Your task to perform on an android device: turn off sleep mode Image 0: 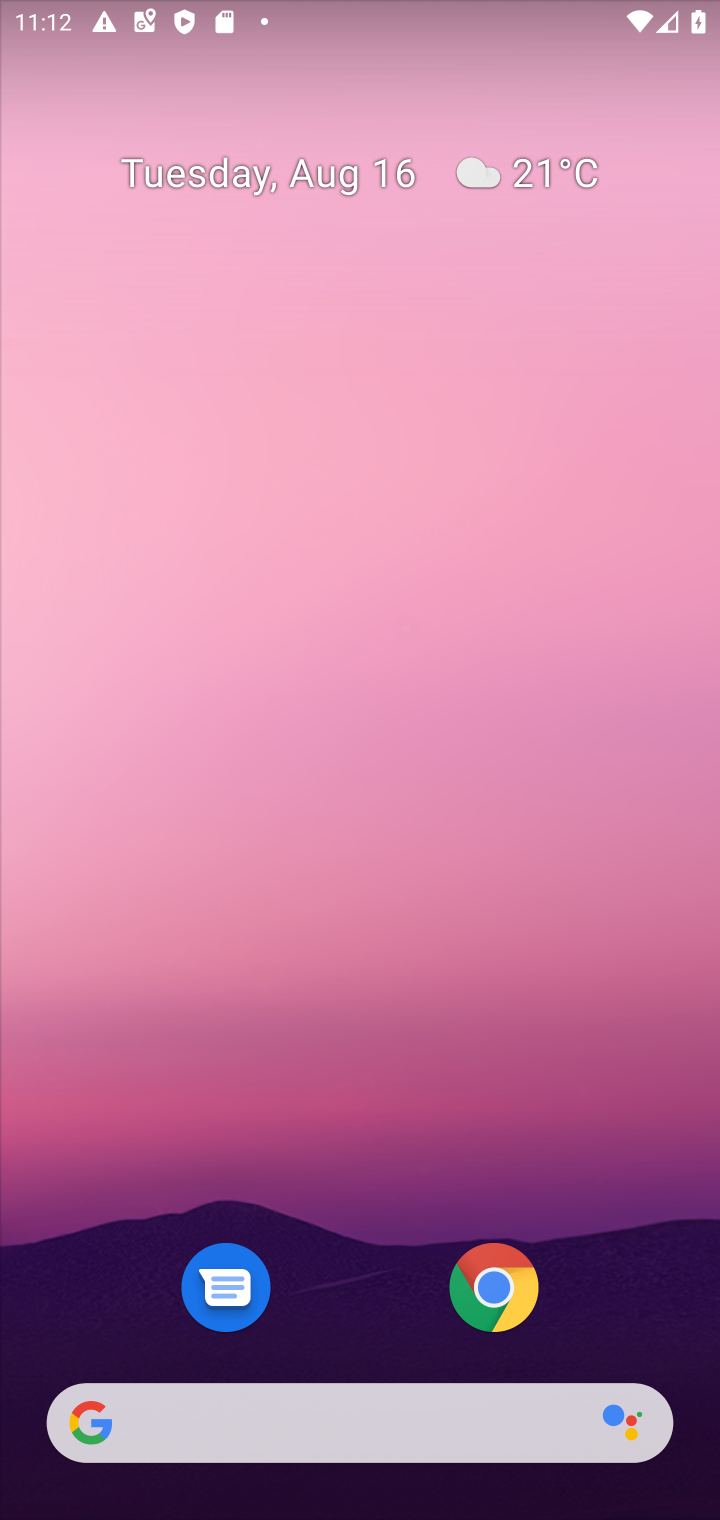
Step 0: drag from (667, 1273) to (616, 321)
Your task to perform on an android device: turn off sleep mode Image 1: 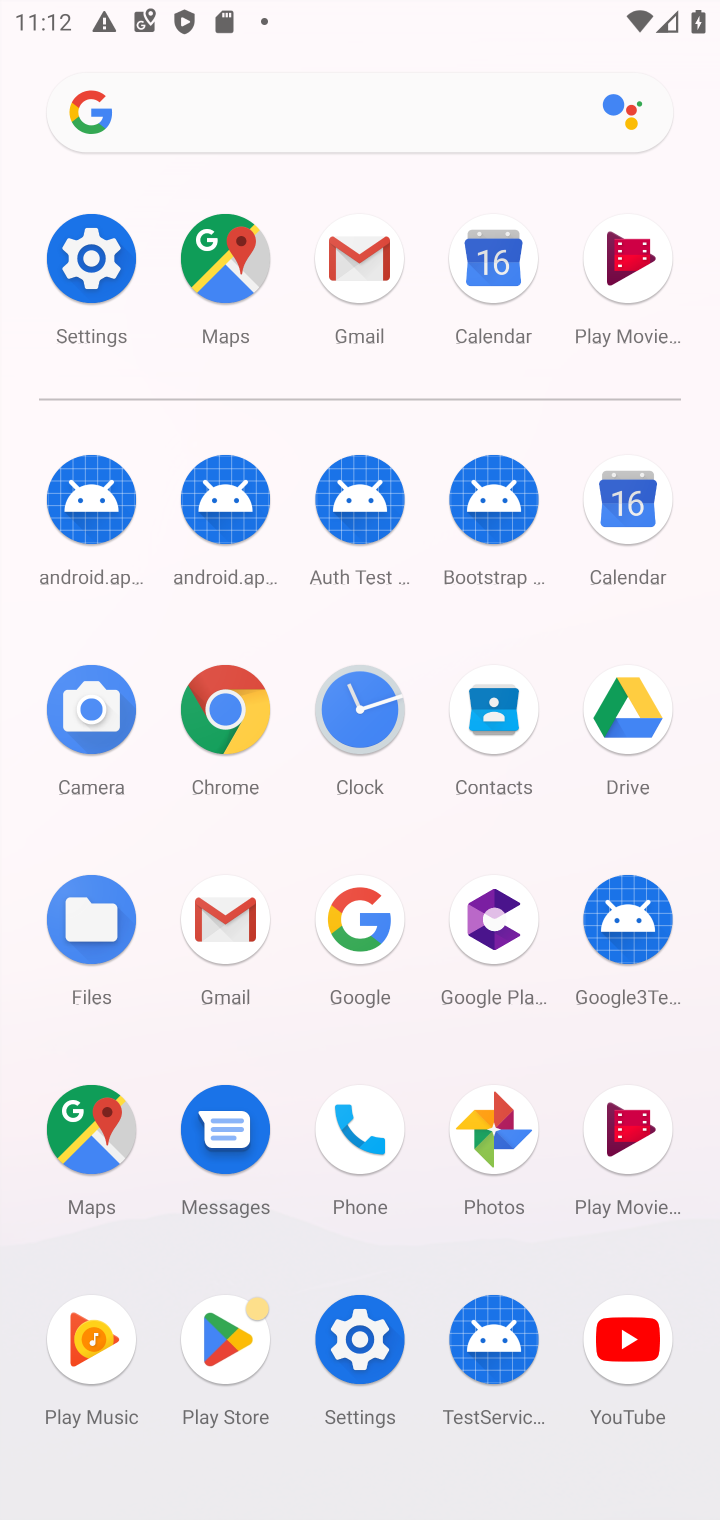
Step 1: click (355, 1342)
Your task to perform on an android device: turn off sleep mode Image 2: 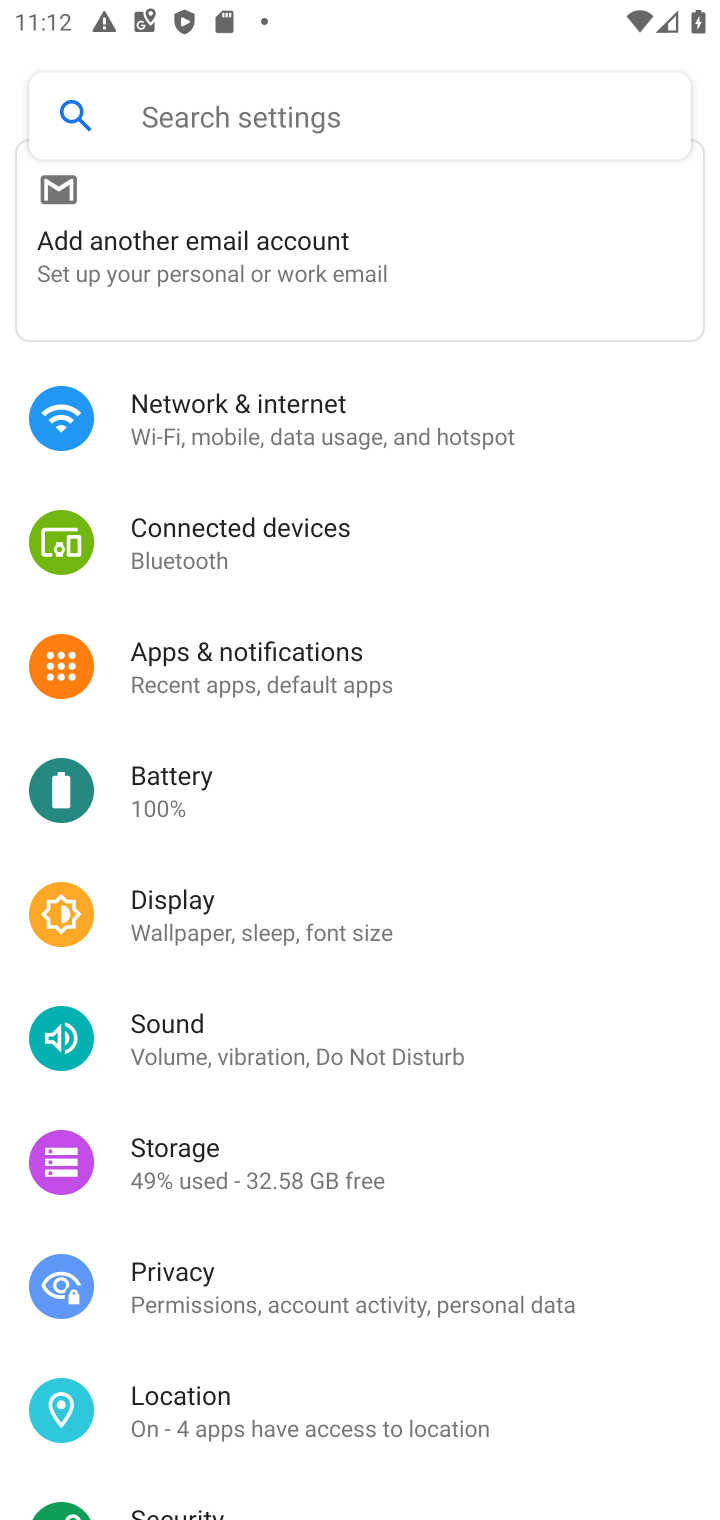
Step 2: click (176, 924)
Your task to perform on an android device: turn off sleep mode Image 3: 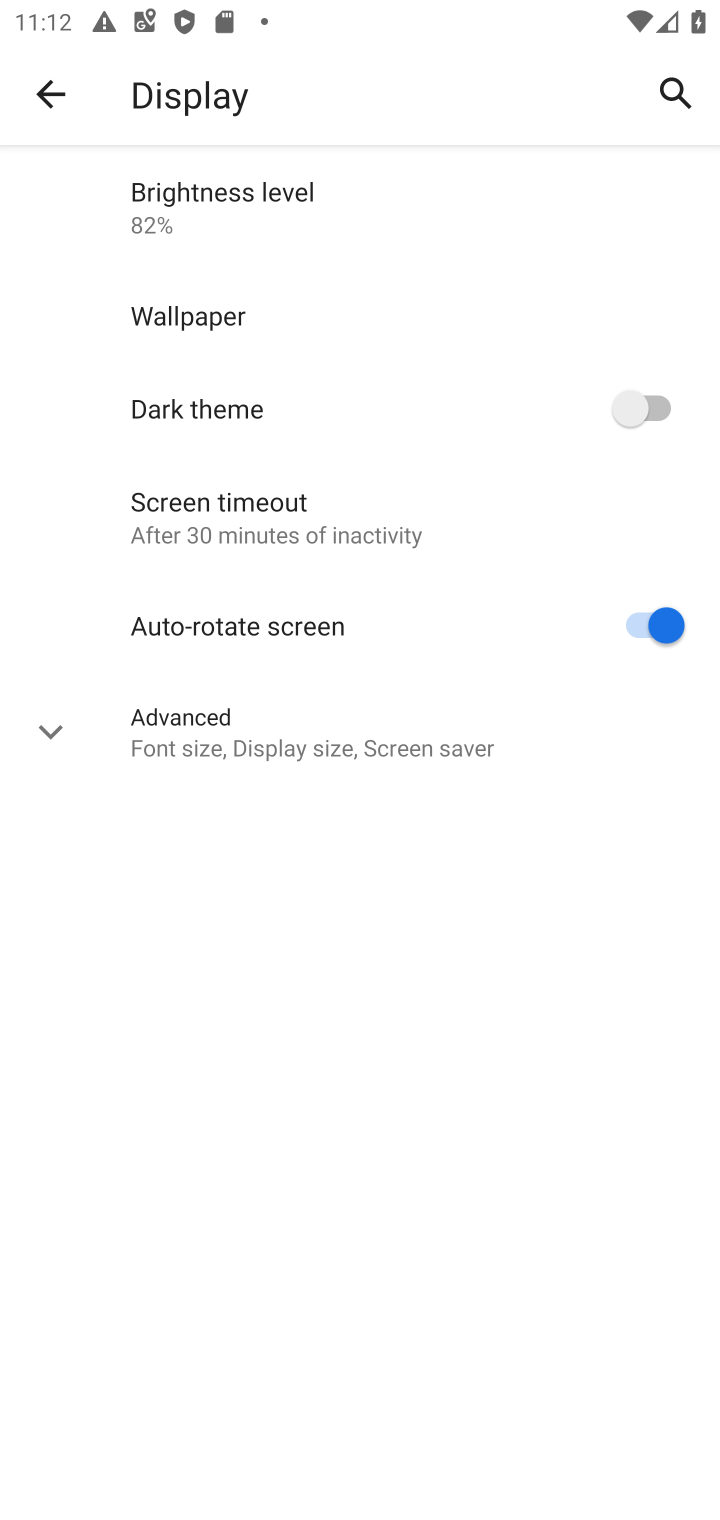
Step 3: click (51, 733)
Your task to perform on an android device: turn off sleep mode Image 4: 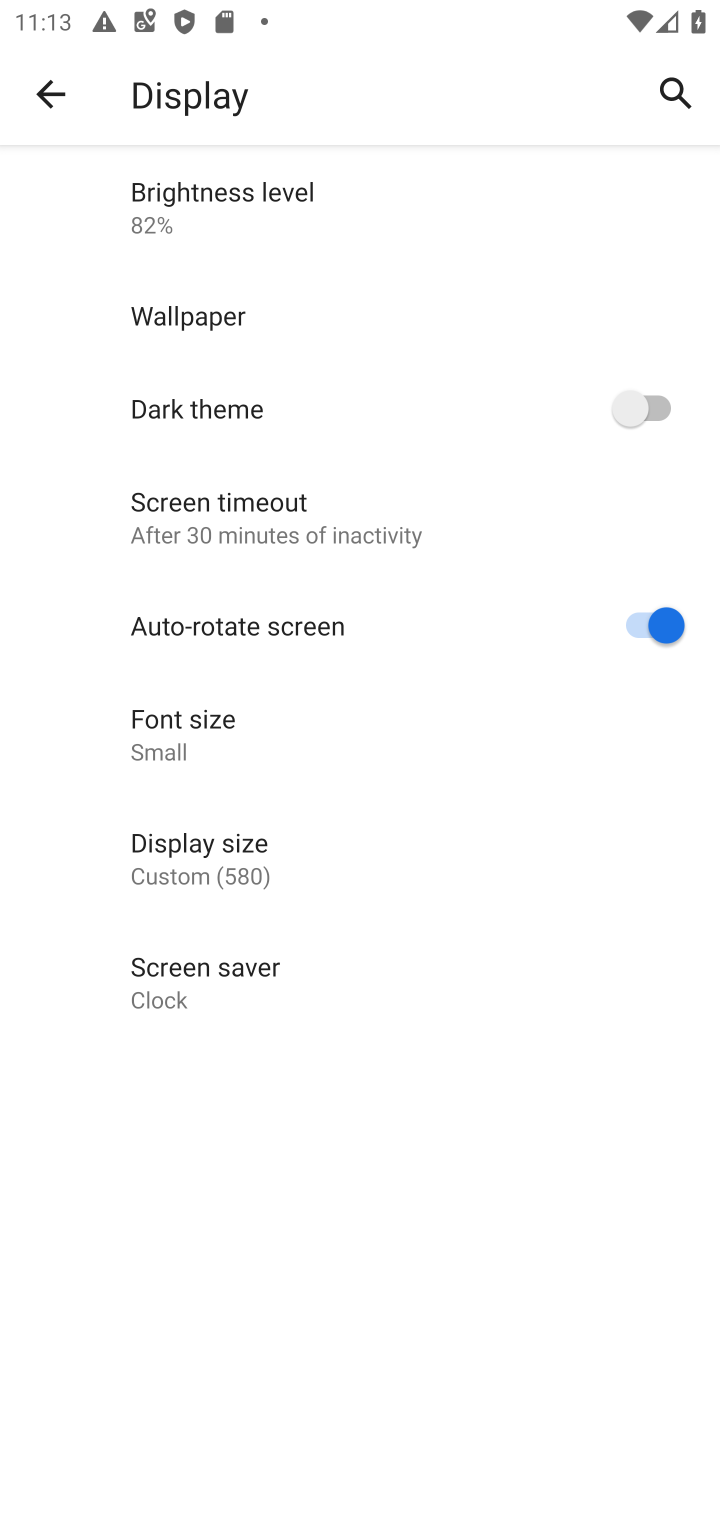
Step 4: task complete